Your task to perform on an android device: turn off translation in the chrome app Image 0: 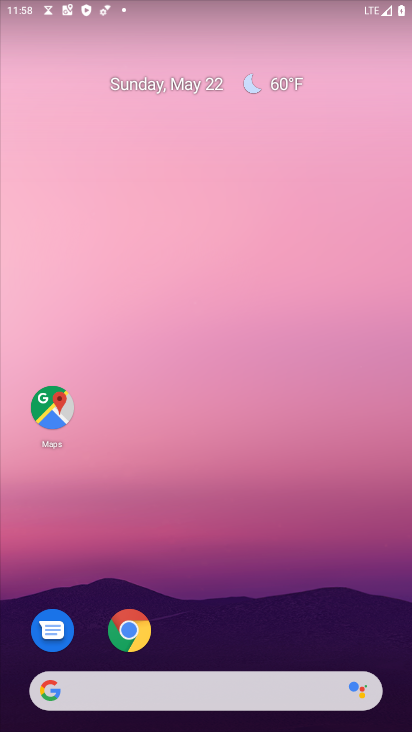
Step 0: click (131, 629)
Your task to perform on an android device: turn off translation in the chrome app Image 1: 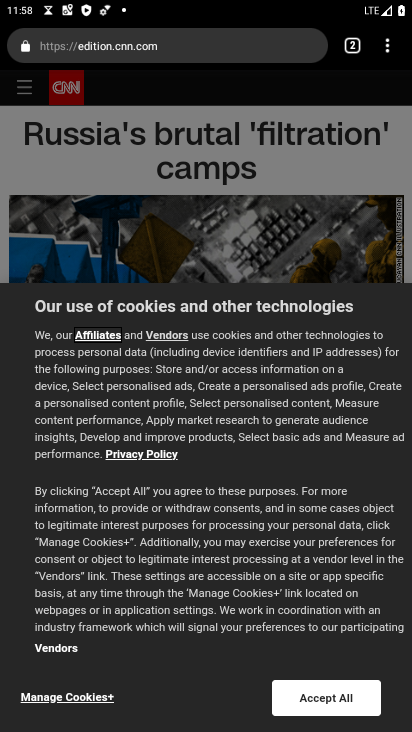
Step 1: click (390, 50)
Your task to perform on an android device: turn off translation in the chrome app Image 2: 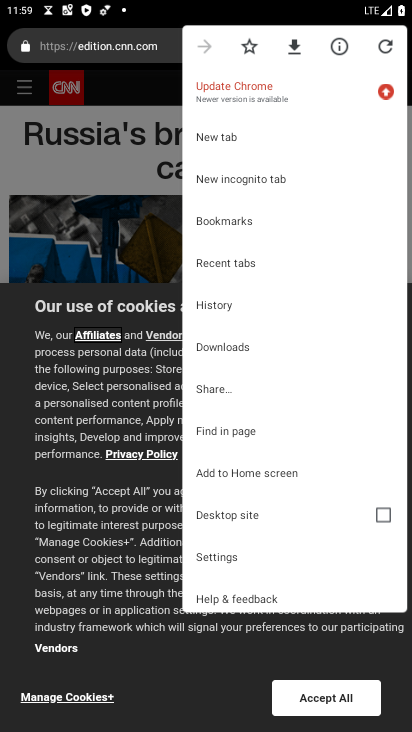
Step 2: click (215, 558)
Your task to perform on an android device: turn off translation in the chrome app Image 3: 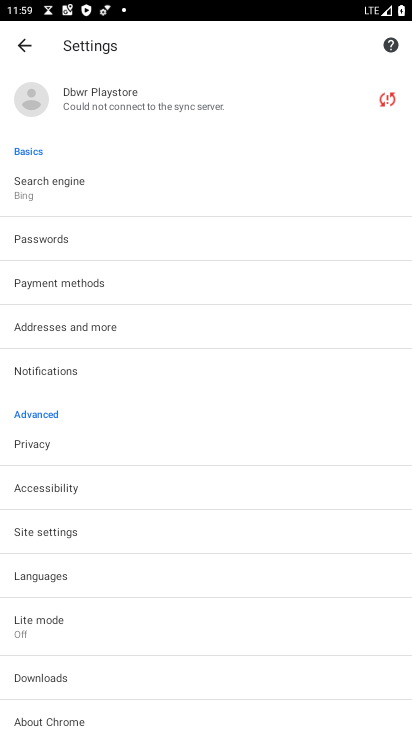
Step 3: click (59, 584)
Your task to perform on an android device: turn off translation in the chrome app Image 4: 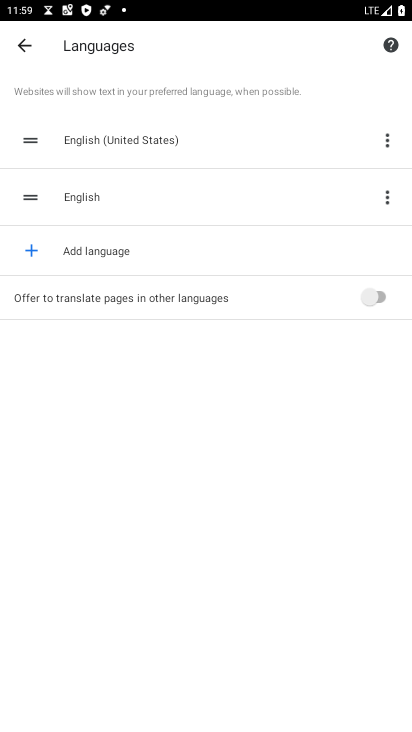
Step 4: task complete